Your task to perform on an android device: search for starred emails in the gmail app Image 0: 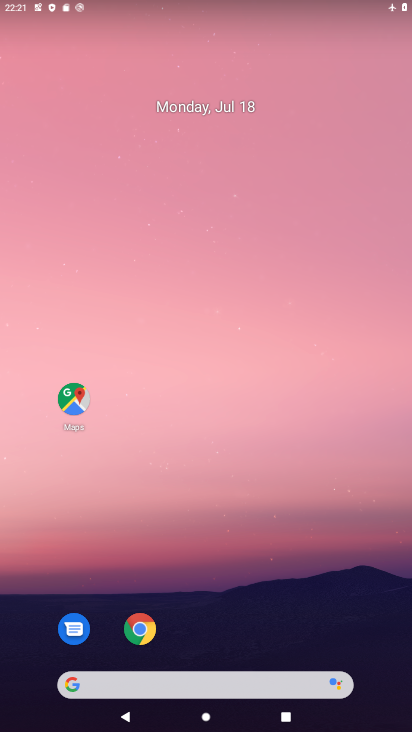
Step 0: drag from (317, 648) to (260, 131)
Your task to perform on an android device: search for starred emails in the gmail app Image 1: 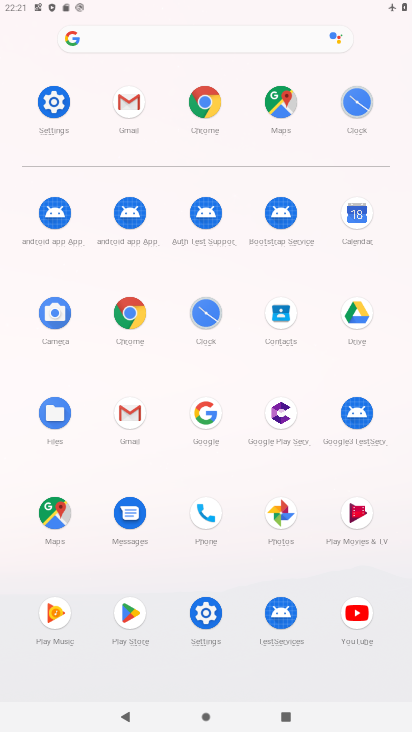
Step 1: click (143, 94)
Your task to perform on an android device: search for starred emails in the gmail app Image 2: 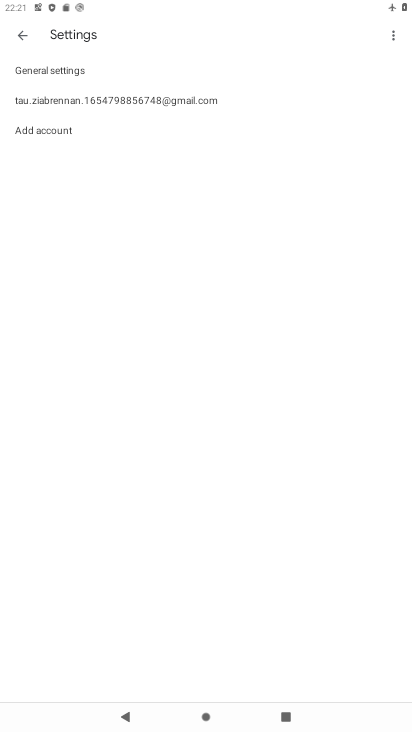
Step 2: click (23, 45)
Your task to perform on an android device: search for starred emails in the gmail app Image 3: 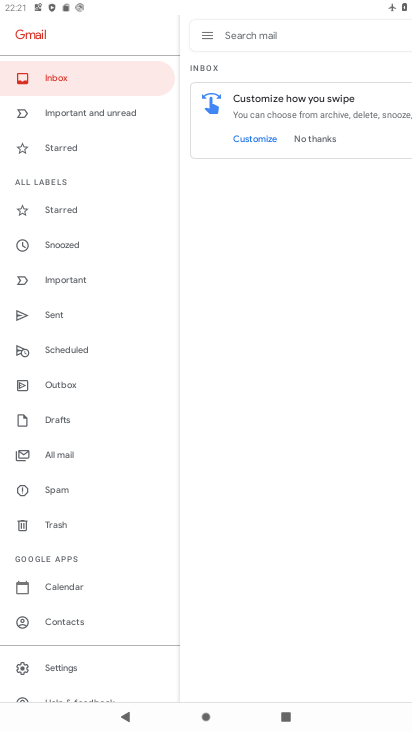
Step 3: click (66, 219)
Your task to perform on an android device: search for starred emails in the gmail app Image 4: 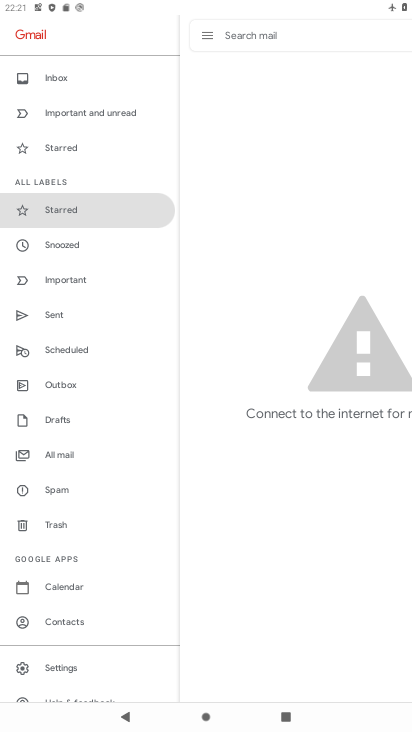
Step 4: task complete